Your task to perform on an android device: Search for seafood restaurants on Google Maps Image 0: 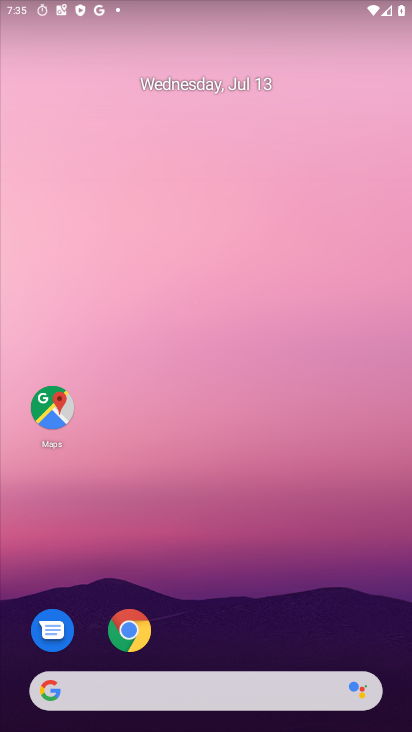
Step 0: drag from (363, 621) to (194, 1)
Your task to perform on an android device: Search for seafood restaurants on Google Maps Image 1: 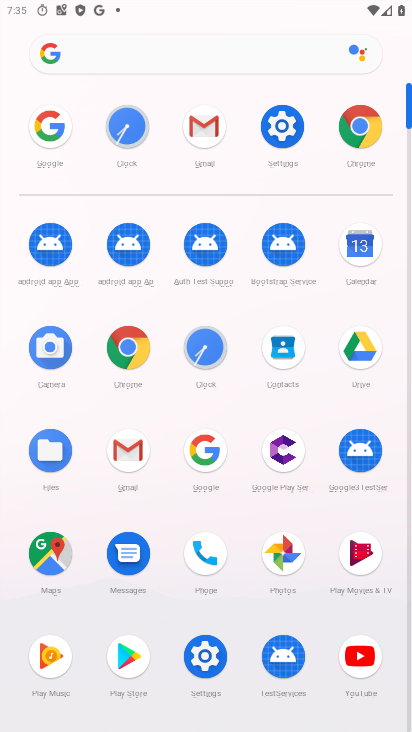
Step 1: click (59, 579)
Your task to perform on an android device: Search for seafood restaurants on Google Maps Image 2: 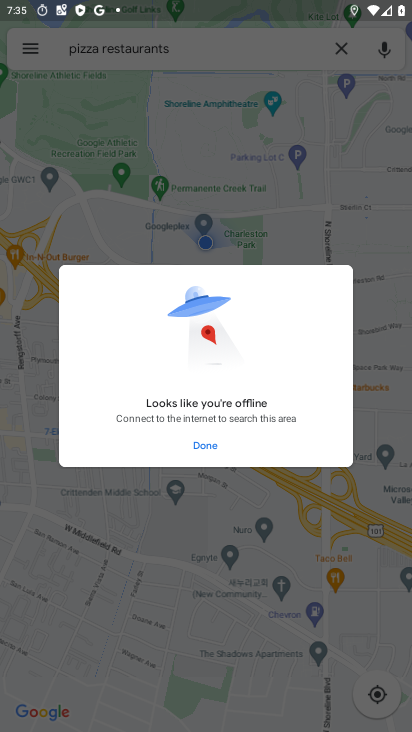
Step 2: press back button
Your task to perform on an android device: Search for seafood restaurants on Google Maps Image 3: 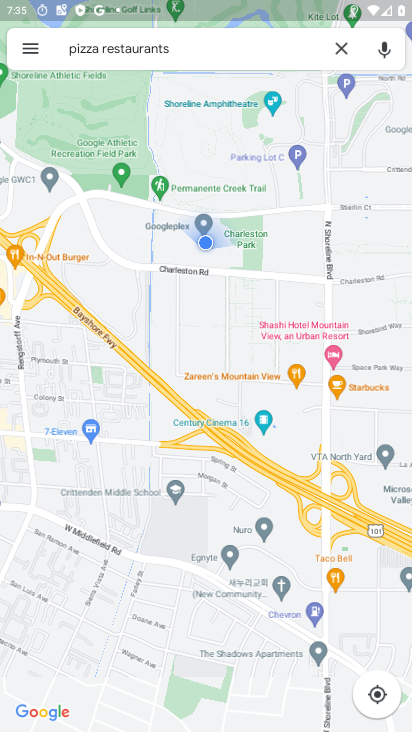
Step 3: click (338, 46)
Your task to perform on an android device: Search for seafood restaurants on Google Maps Image 4: 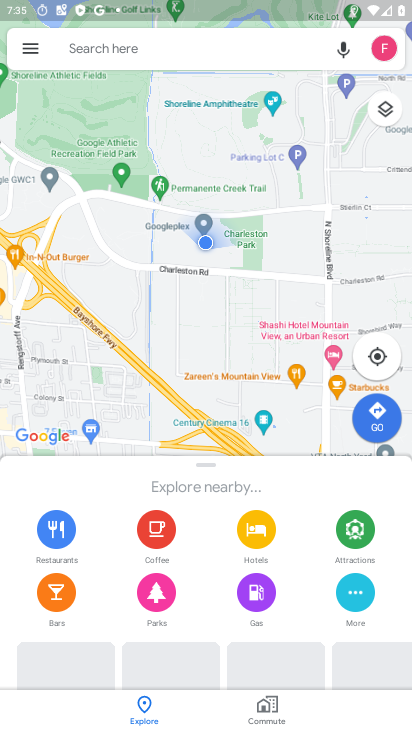
Step 4: click (184, 44)
Your task to perform on an android device: Search for seafood restaurants on Google Maps Image 5: 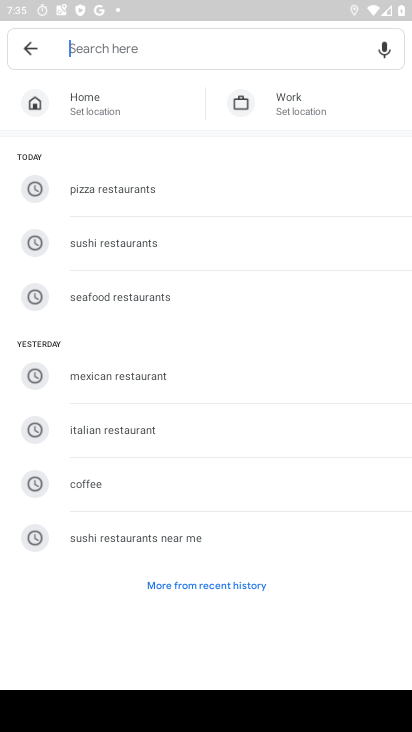
Step 5: click (108, 295)
Your task to perform on an android device: Search for seafood restaurants on Google Maps Image 6: 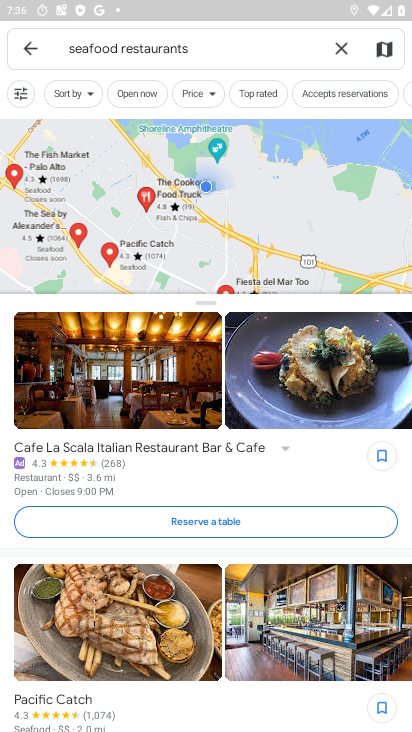
Step 6: task complete